Your task to perform on an android device: Check the news Image 0: 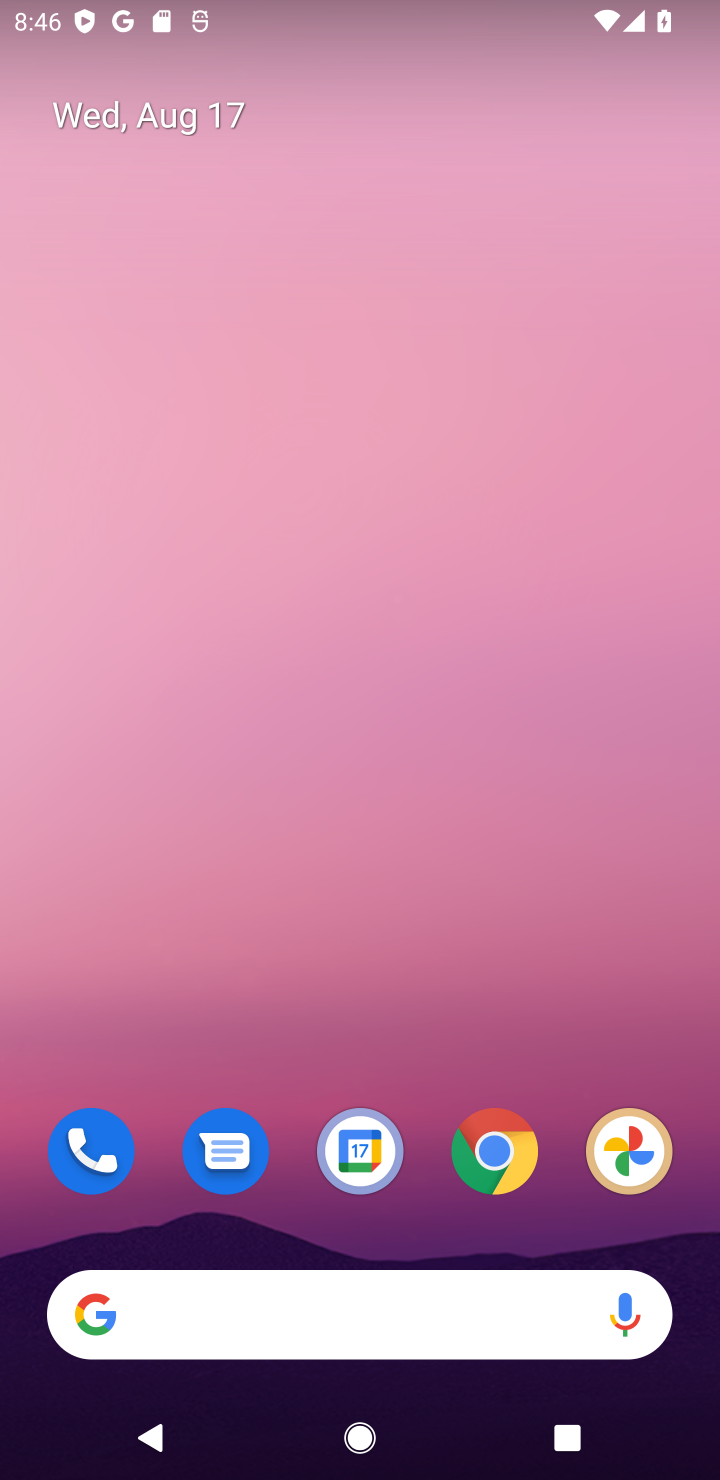
Step 0: drag from (312, 891) to (238, 168)
Your task to perform on an android device: Check the news Image 1: 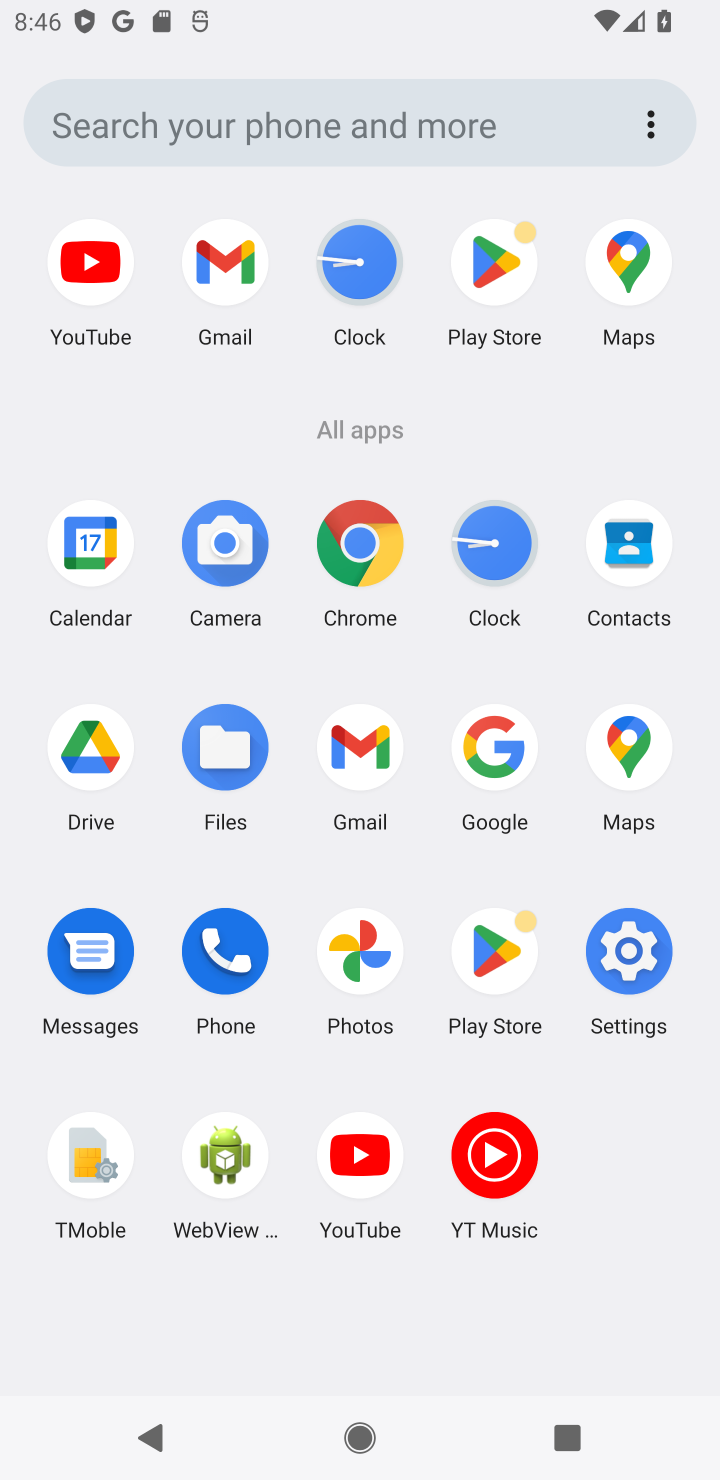
Step 1: click (498, 763)
Your task to perform on an android device: Check the news Image 2: 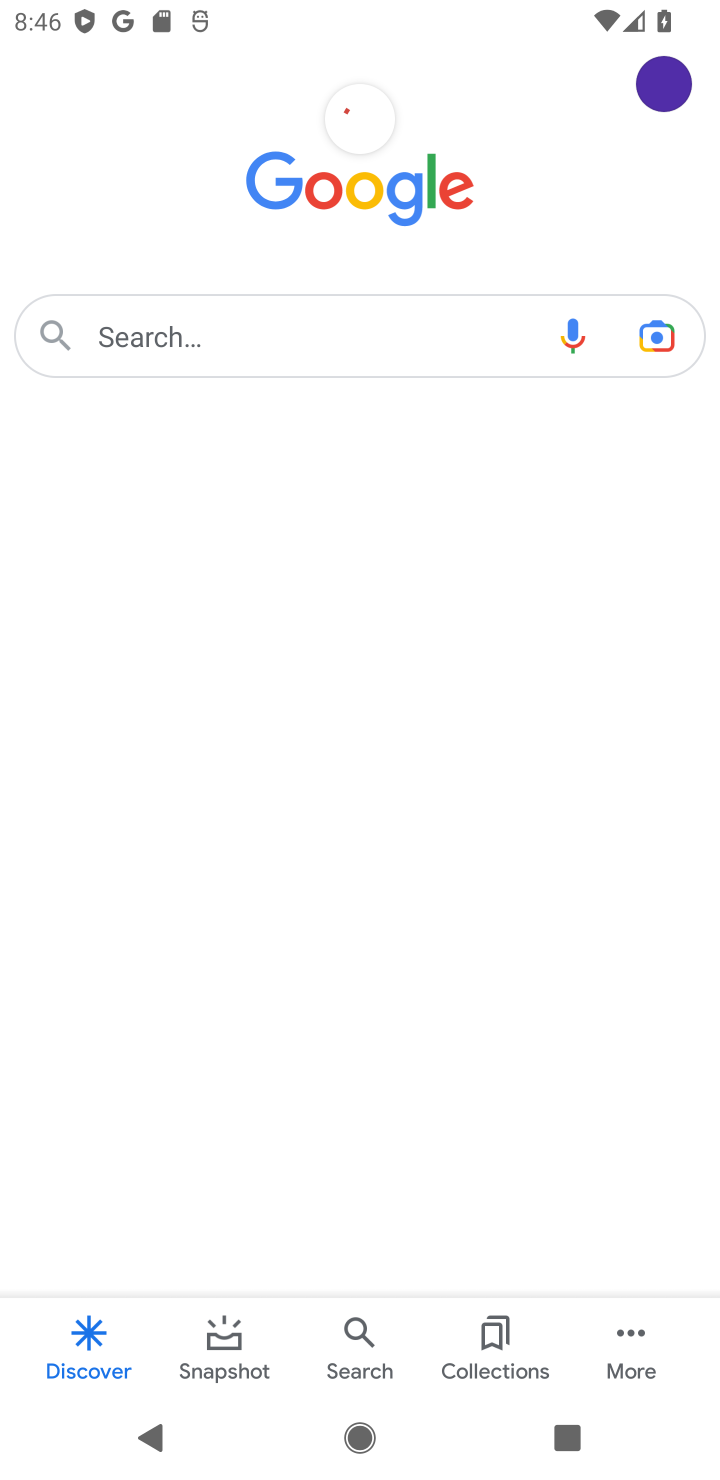
Step 2: click (192, 342)
Your task to perform on an android device: Check the news Image 3: 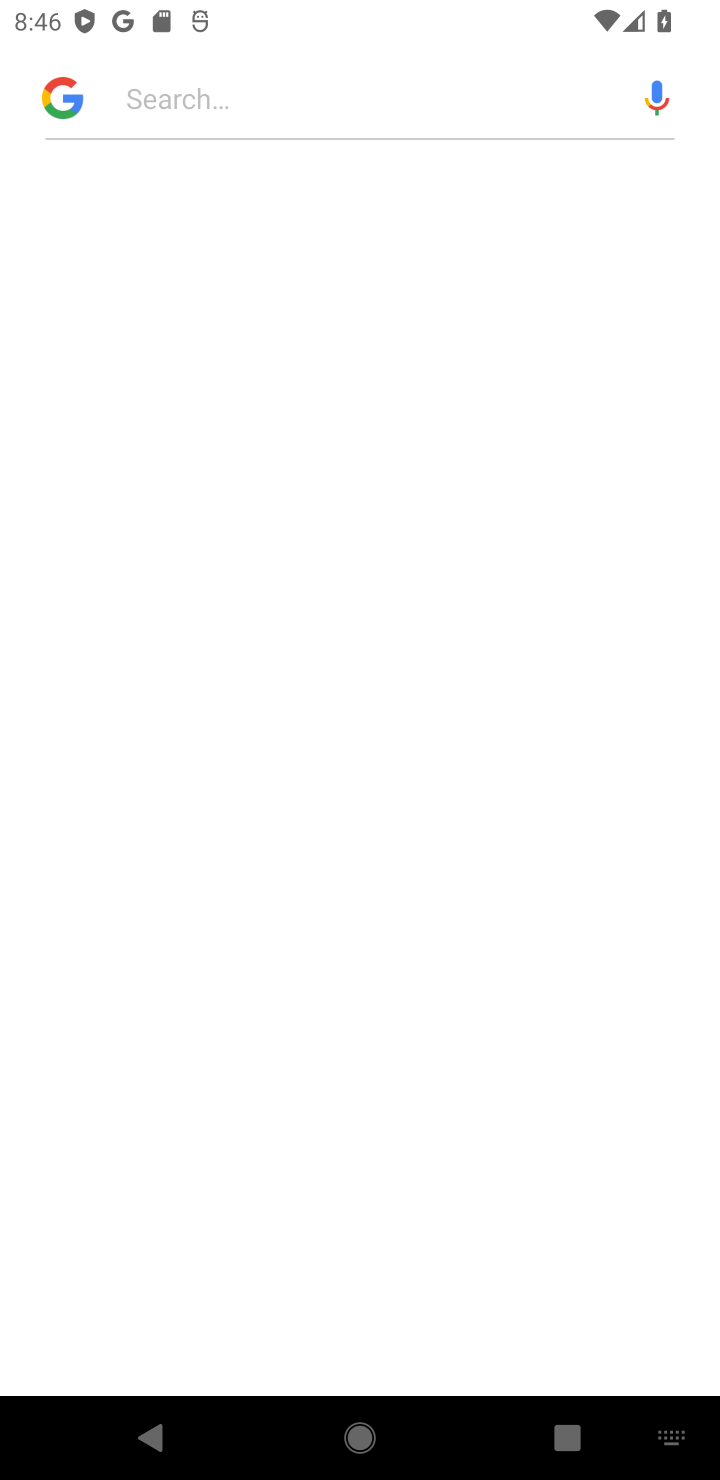
Step 3: click (323, 825)
Your task to perform on an android device: Check the news Image 4: 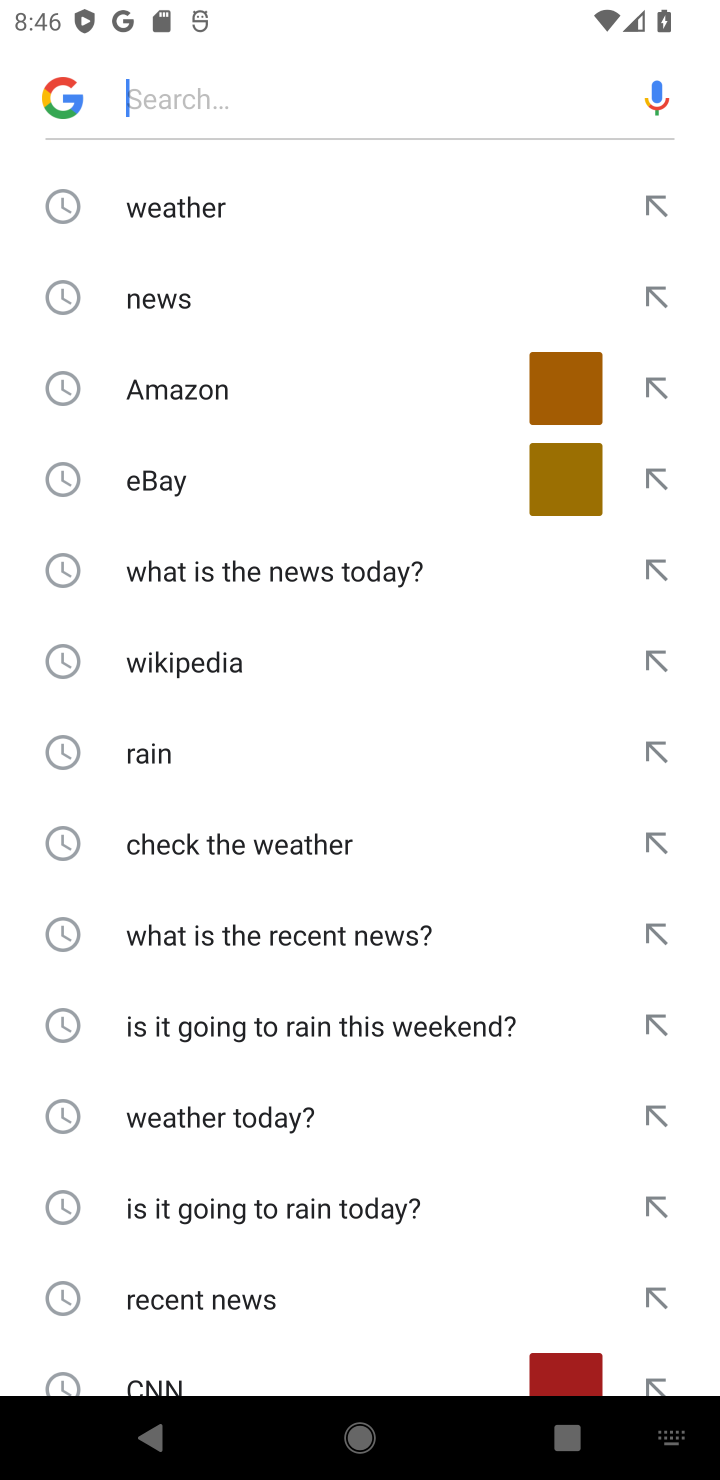
Step 4: click (186, 341)
Your task to perform on an android device: Check the news Image 5: 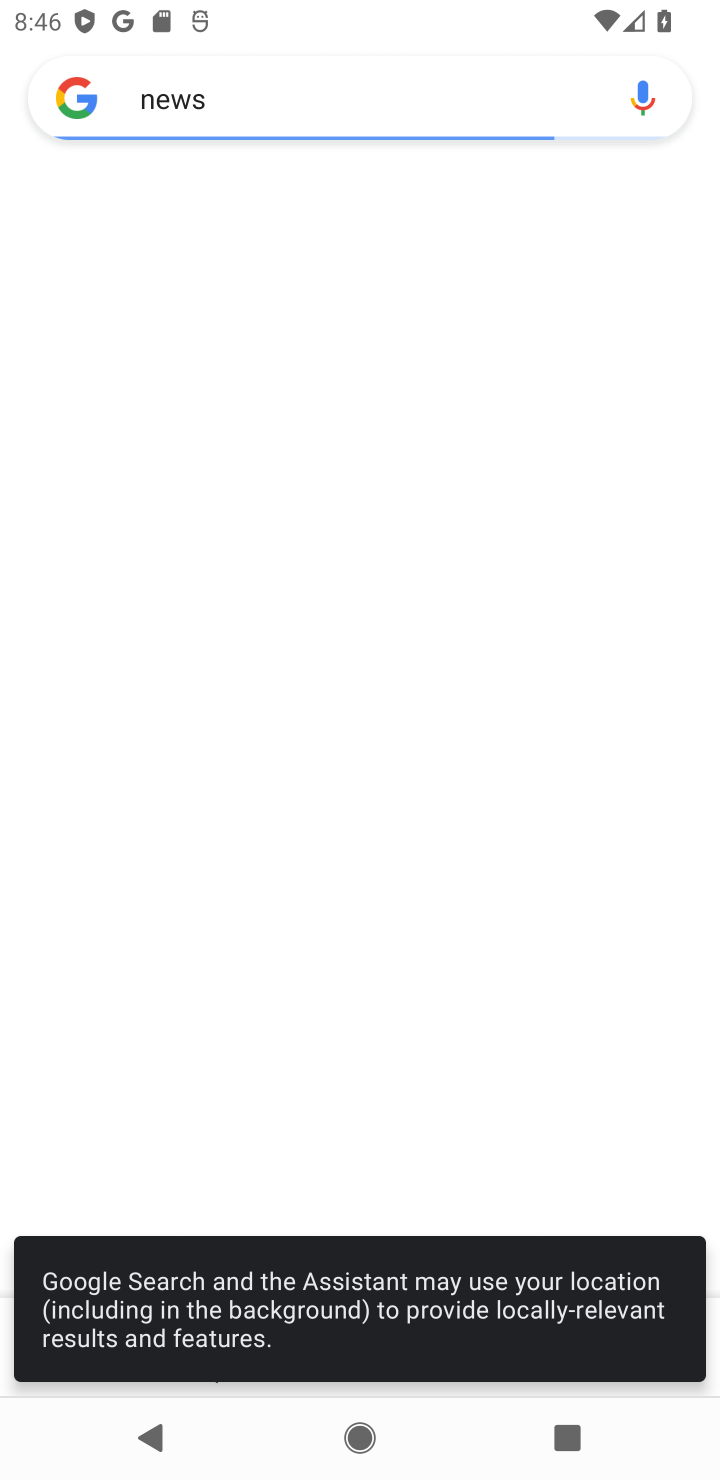
Step 5: click (142, 302)
Your task to perform on an android device: Check the news Image 6: 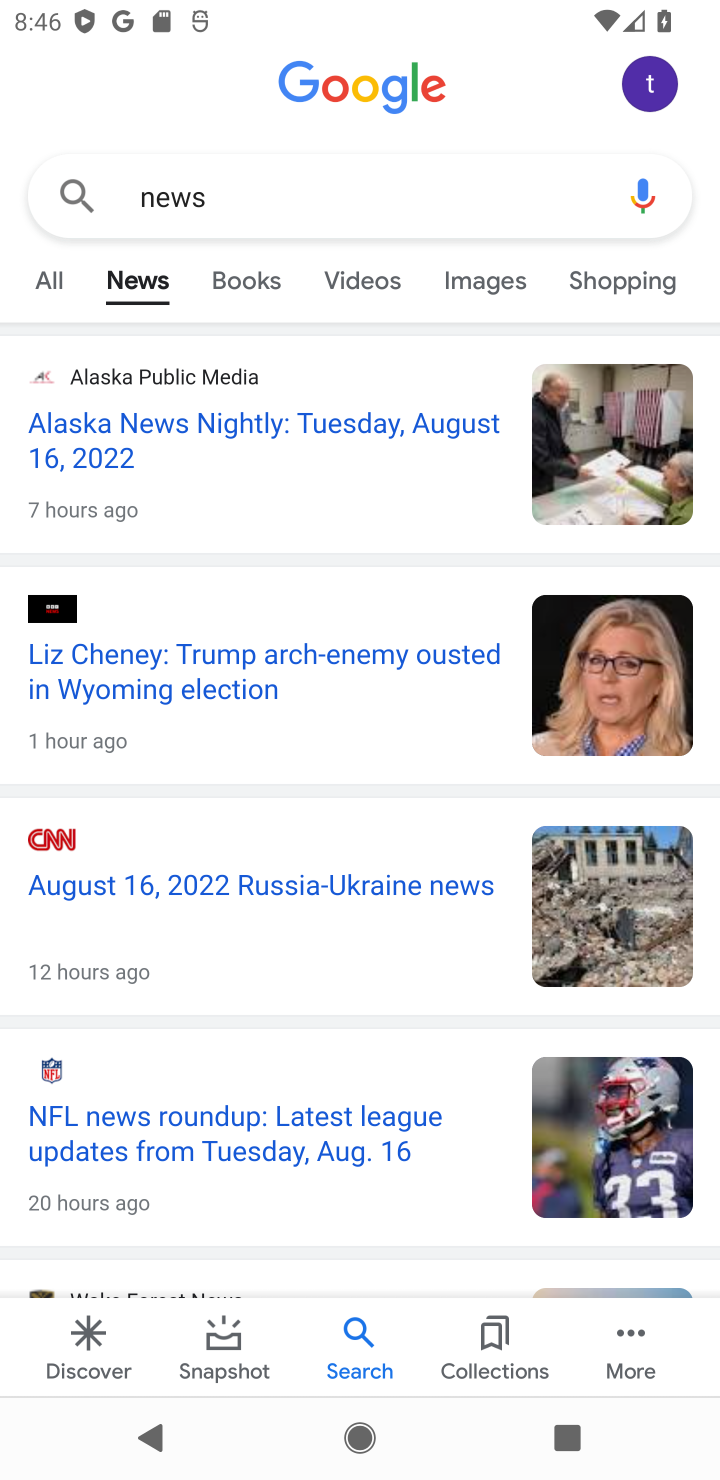
Step 6: task complete